Your task to perform on an android device: toggle translation in the chrome app Image 0: 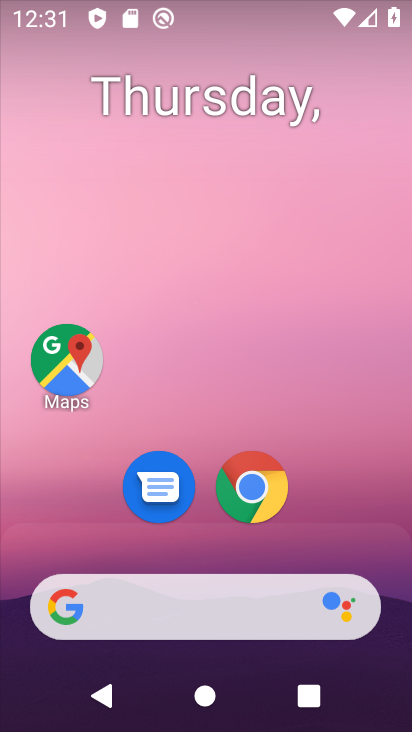
Step 0: click (242, 474)
Your task to perform on an android device: toggle translation in the chrome app Image 1: 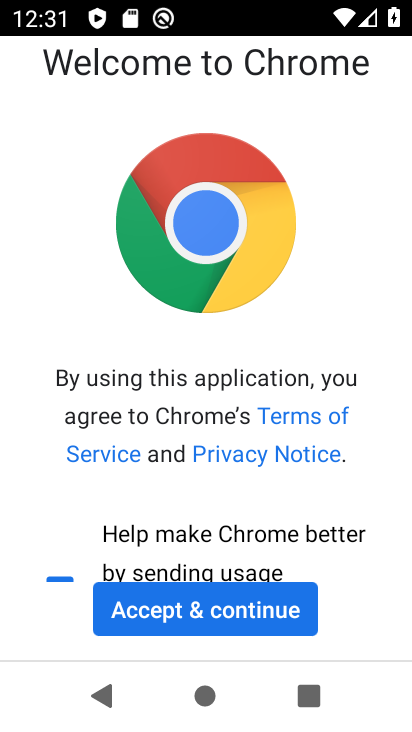
Step 1: click (267, 627)
Your task to perform on an android device: toggle translation in the chrome app Image 2: 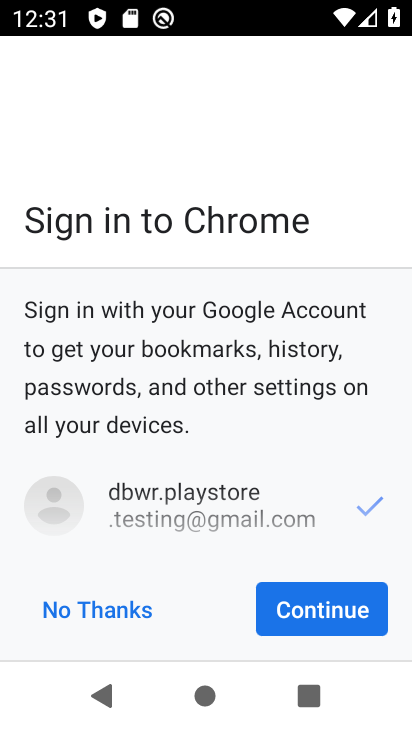
Step 2: click (381, 617)
Your task to perform on an android device: toggle translation in the chrome app Image 3: 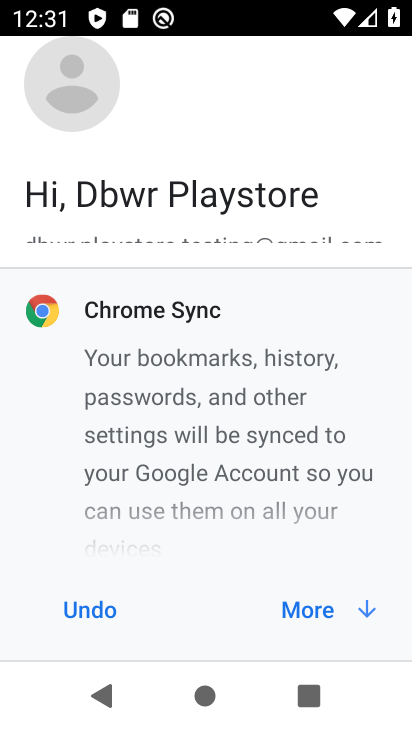
Step 3: click (381, 617)
Your task to perform on an android device: toggle translation in the chrome app Image 4: 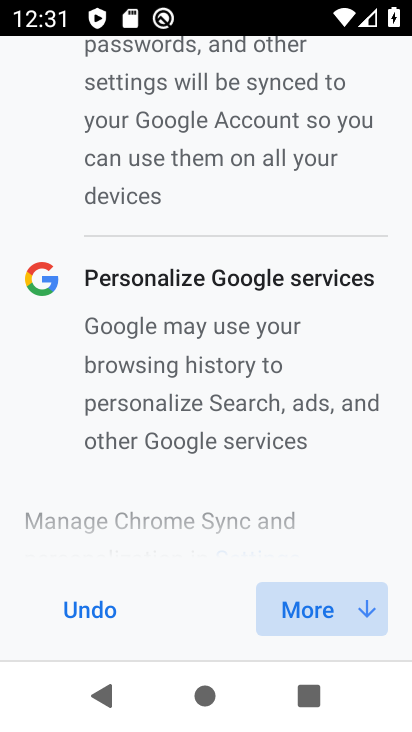
Step 4: click (381, 617)
Your task to perform on an android device: toggle translation in the chrome app Image 5: 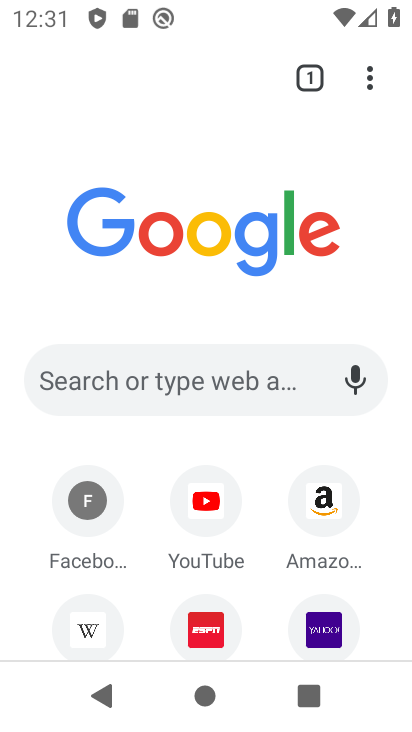
Step 5: drag from (359, 84) to (296, 565)
Your task to perform on an android device: toggle translation in the chrome app Image 6: 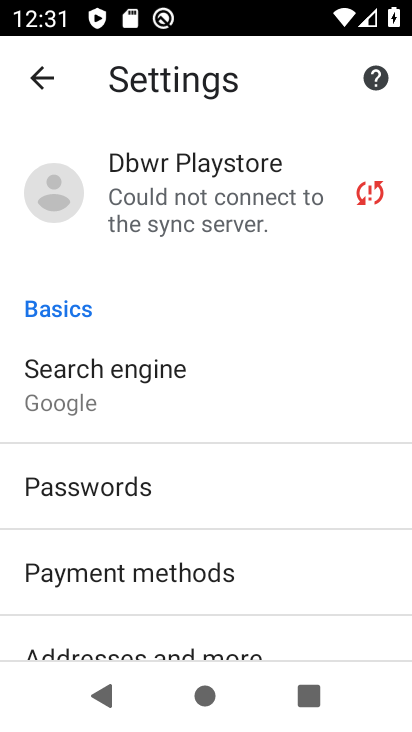
Step 6: drag from (222, 632) to (297, 77)
Your task to perform on an android device: toggle translation in the chrome app Image 7: 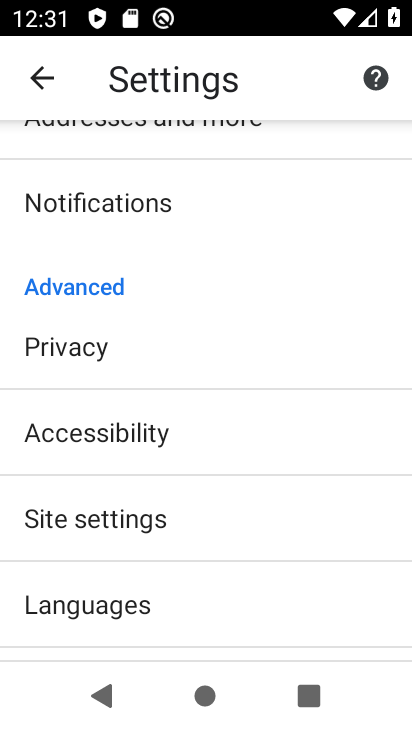
Step 7: click (162, 613)
Your task to perform on an android device: toggle translation in the chrome app Image 8: 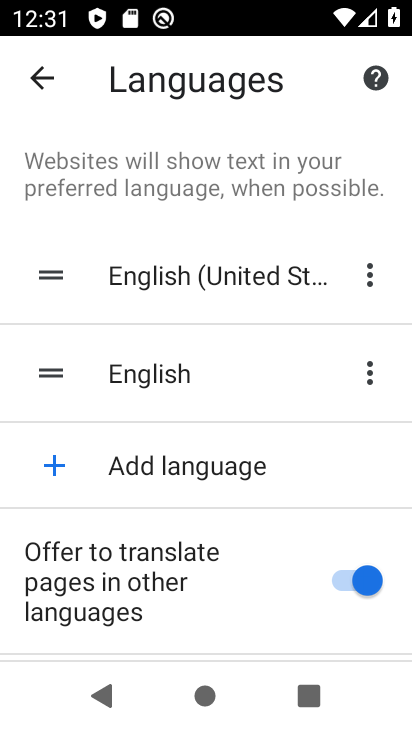
Step 8: click (327, 591)
Your task to perform on an android device: toggle translation in the chrome app Image 9: 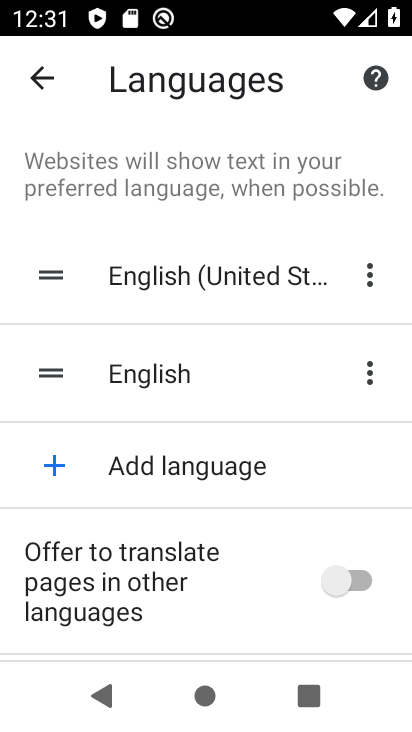
Step 9: task complete